Your task to perform on an android device: turn on priority inbox in the gmail app Image 0: 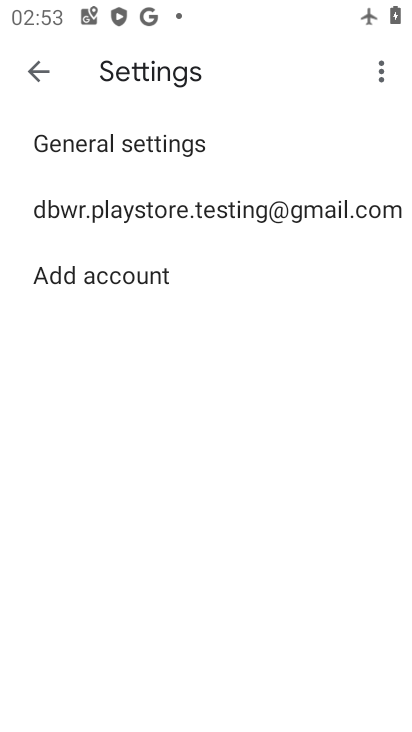
Step 0: press home button
Your task to perform on an android device: turn on priority inbox in the gmail app Image 1: 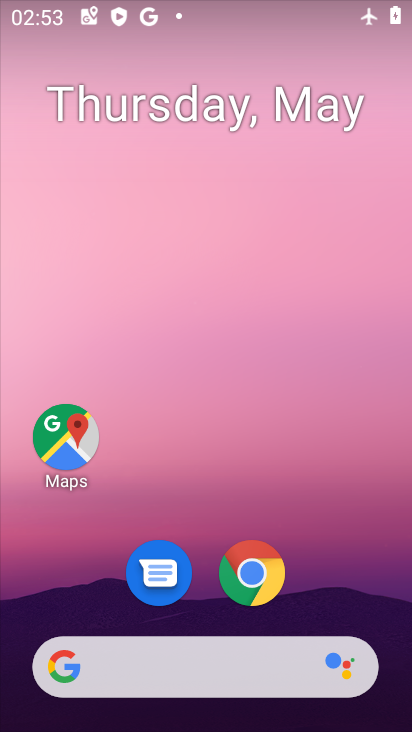
Step 1: drag from (285, 601) to (281, 277)
Your task to perform on an android device: turn on priority inbox in the gmail app Image 2: 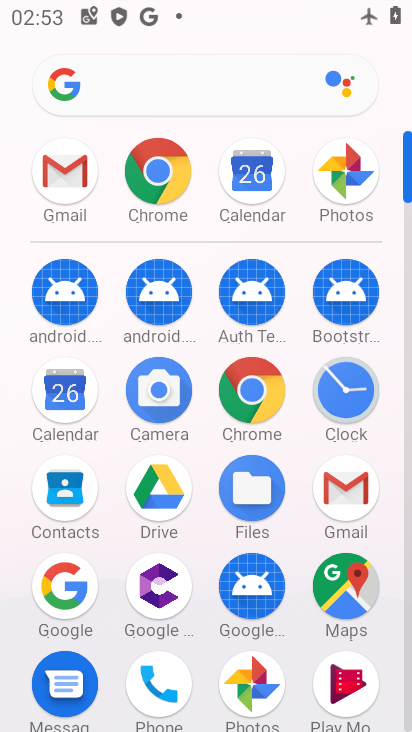
Step 2: click (347, 485)
Your task to perform on an android device: turn on priority inbox in the gmail app Image 3: 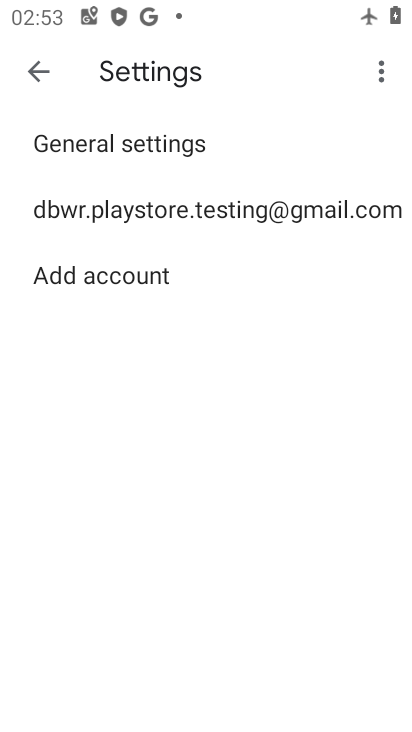
Step 3: click (36, 65)
Your task to perform on an android device: turn on priority inbox in the gmail app Image 4: 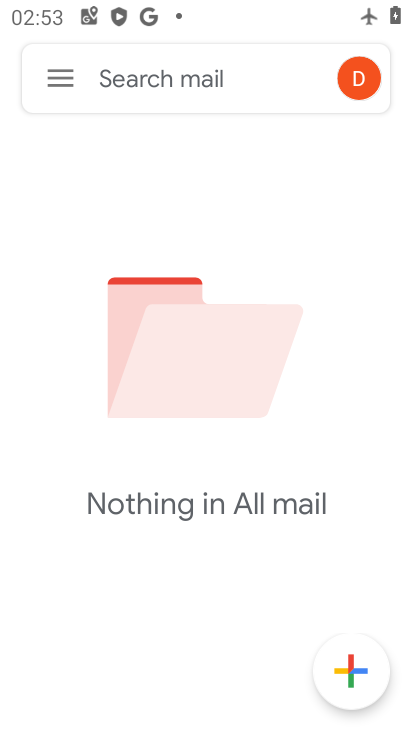
Step 4: click (55, 74)
Your task to perform on an android device: turn on priority inbox in the gmail app Image 5: 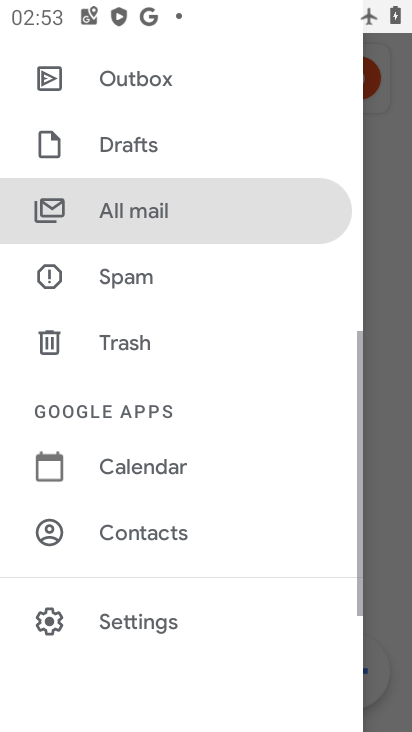
Step 5: click (165, 625)
Your task to perform on an android device: turn on priority inbox in the gmail app Image 6: 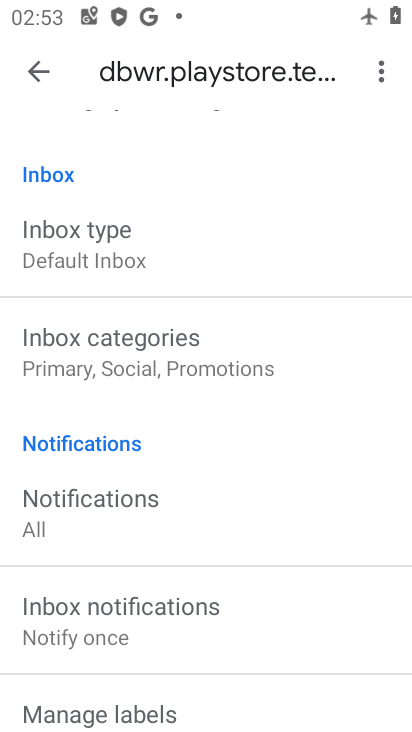
Step 6: click (128, 248)
Your task to perform on an android device: turn on priority inbox in the gmail app Image 7: 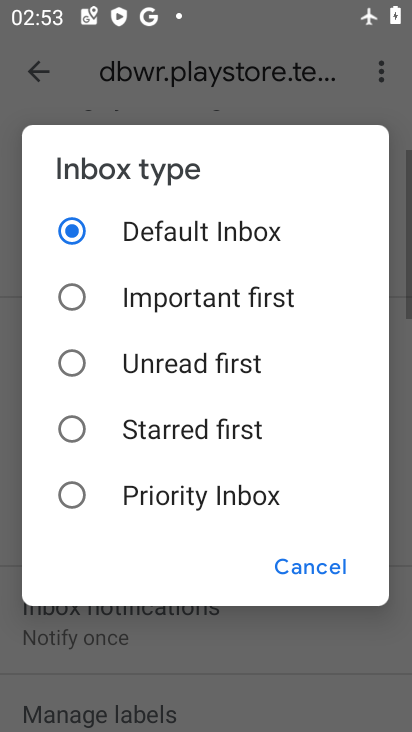
Step 7: click (141, 487)
Your task to perform on an android device: turn on priority inbox in the gmail app Image 8: 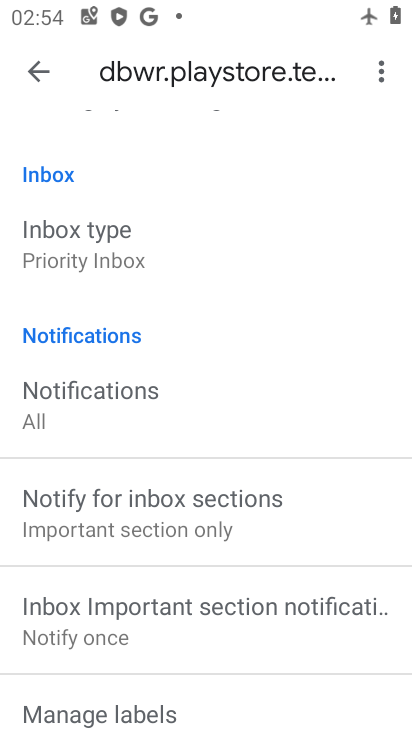
Step 8: task complete